Your task to perform on an android device: Open Maps and search for coffee Image 0: 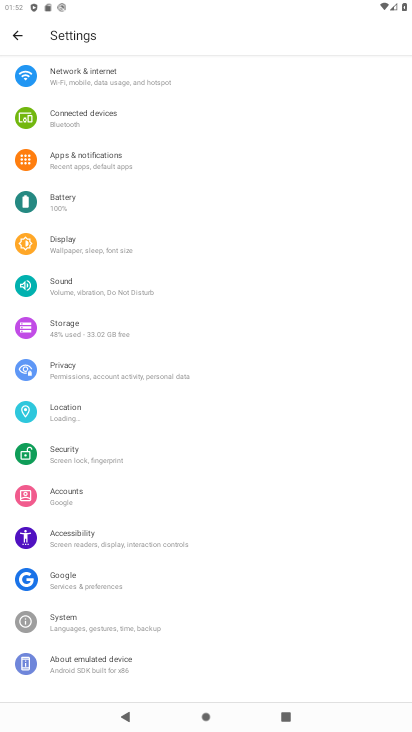
Step 0: press home button
Your task to perform on an android device: Open Maps and search for coffee Image 1: 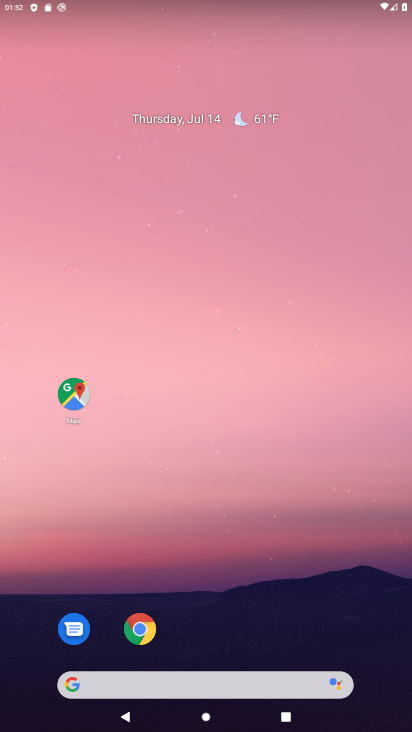
Step 1: click (78, 397)
Your task to perform on an android device: Open Maps and search for coffee Image 2: 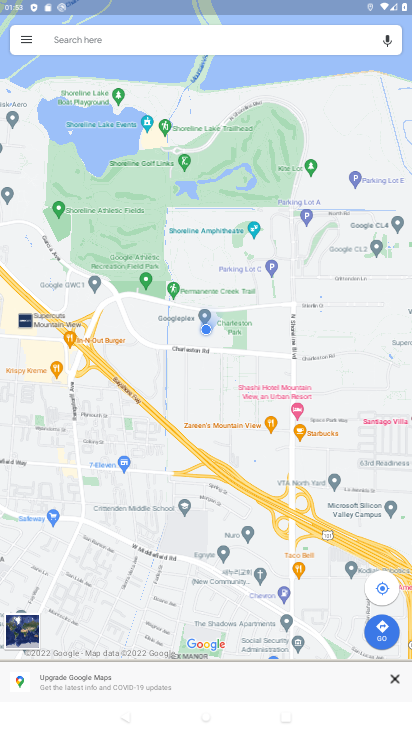
Step 2: click (168, 35)
Your task to perform on an android device: Open Maps and search for coffee Image 3: 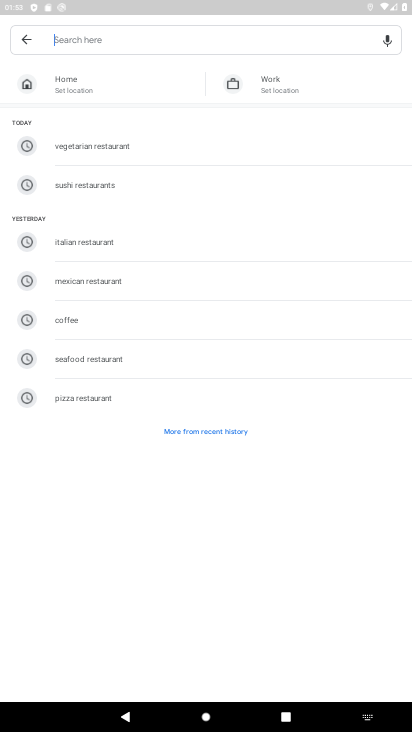
Step 3: type "coffee"
Your task to perform on an android device: Open Maps and search for coffee Image 4: 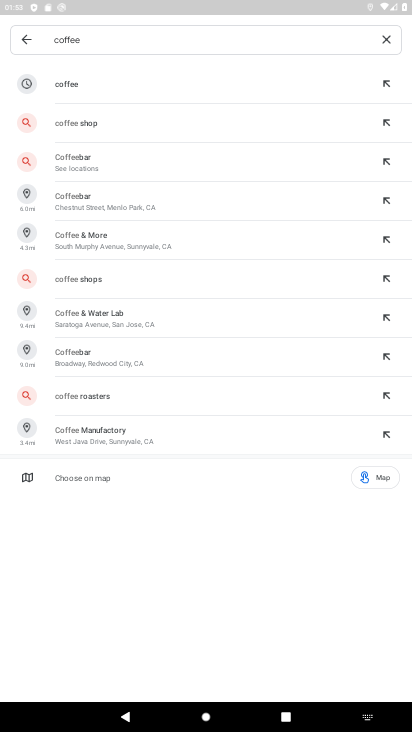
Step 4: click (97, 73)
Your task to perform on an android device: Open Maps and search for coffee Image 5: 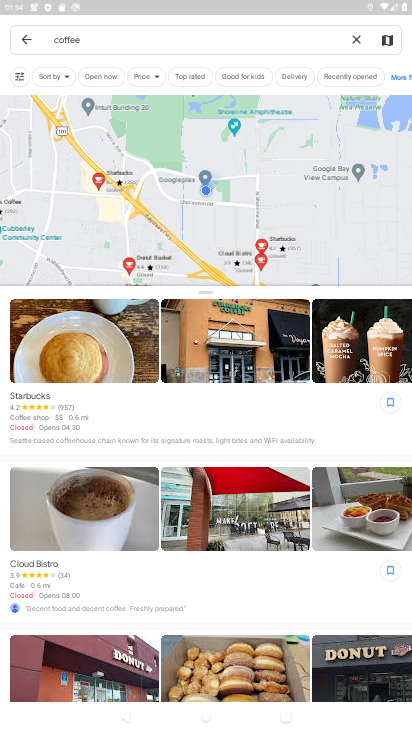
Step 5: task complete